Your task to perform on an android device: turn on airplane mode Image 0: 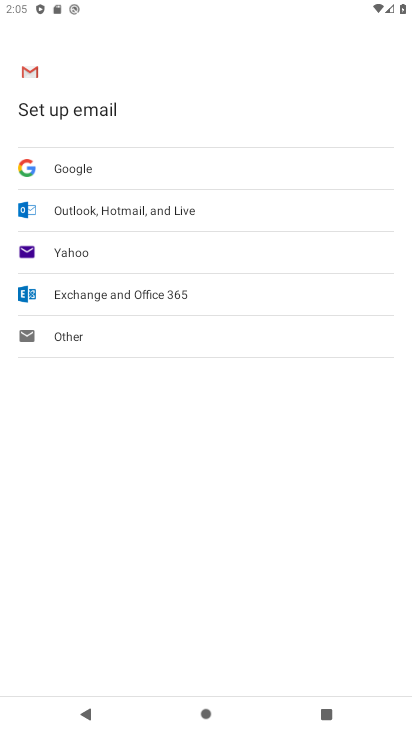
Step 0: press home button
Your task to perform on an android device: turn on airplane mode Image 1: 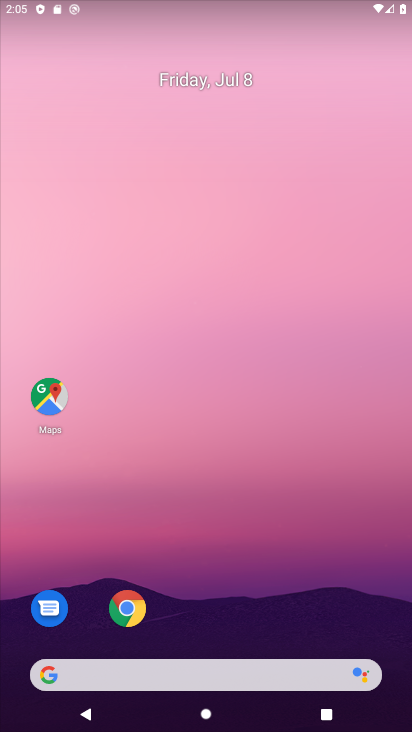
Step 1: drag from (201, 622) to (227, 136)
Your task to perform on an android device: turn on airplane mode Image 2: 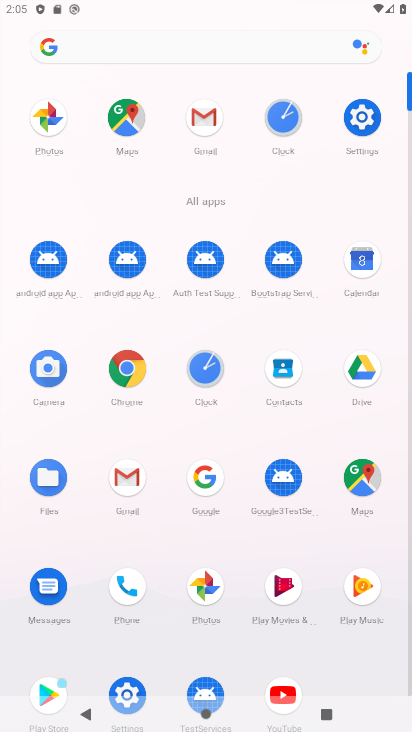
Step 2: click (359, 114)
Your task to perform on an android device: turn on airplane mode Image 3: 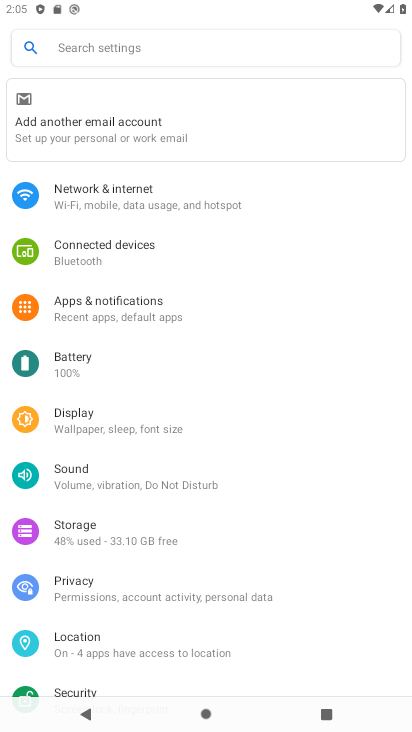
Step 3: click (151, 197)
Your task to perform on an android device: turn on airplane mode Image 4: 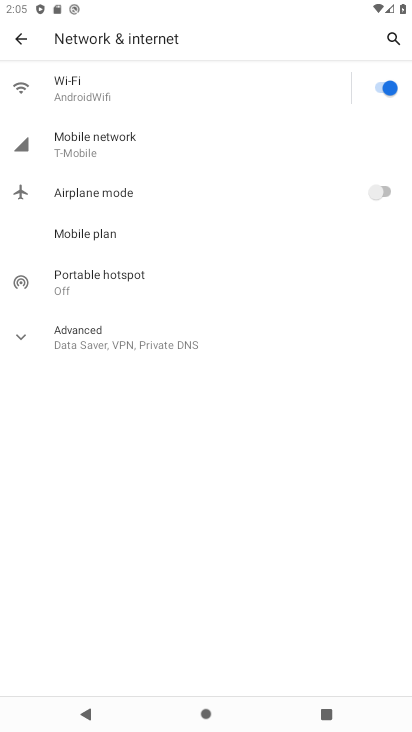
Step 4: click (382, 184)
Your task to perform on an android device: turn on airplane mode Image 5: 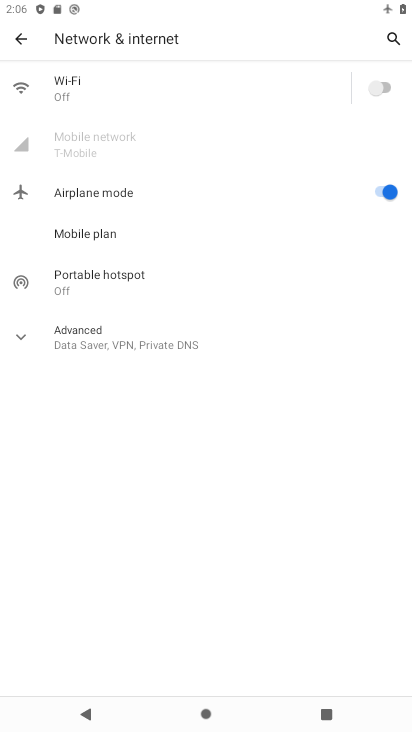
Step 5: task complete